Your task to perform on an android device: change the clock display to analog Image 0: 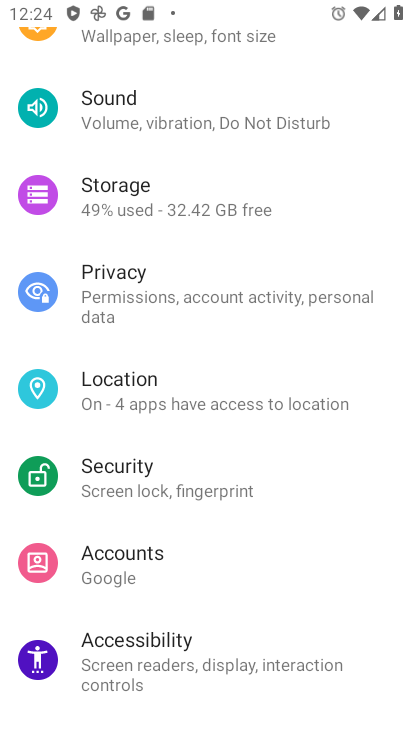
Step 0: press back button
Your task to perform on an android device: change the clock display to analog Image 1: 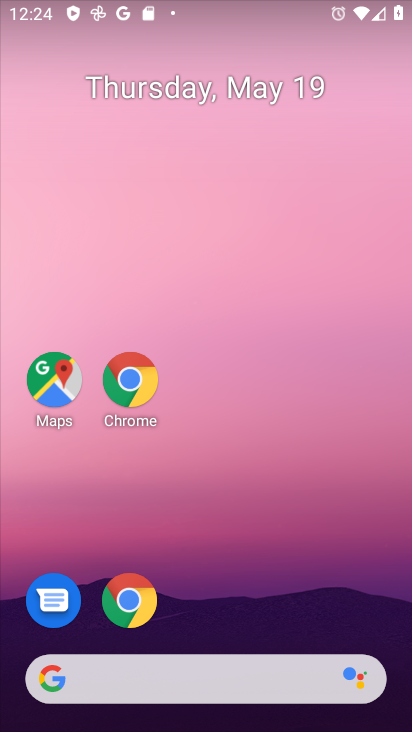
Step 1: drag from (324, 660) to (167, 121)
Your task to perform on an android device: change the clock display to analog Image 2: 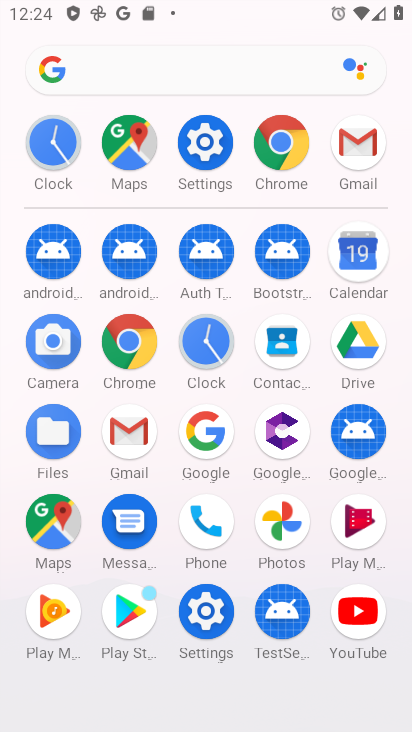
Step 2: drag from (181, 310) to (205, 339)
Your task to perform on an android device: change the clock display to analog Image 3: 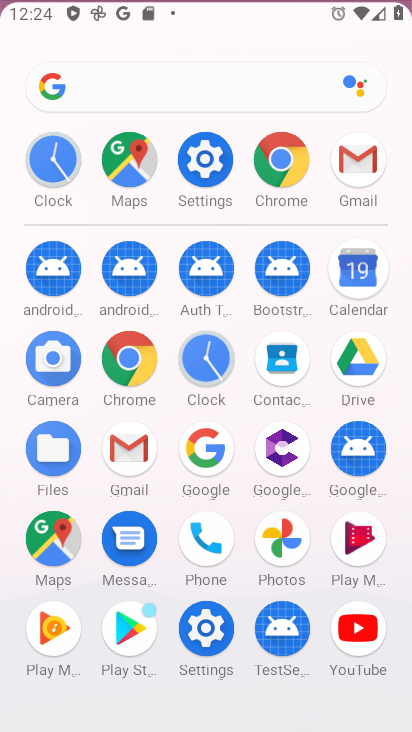
Step 3: click (205, 339)
Your task to perform on an android device: change the clock display to analog Image 4: 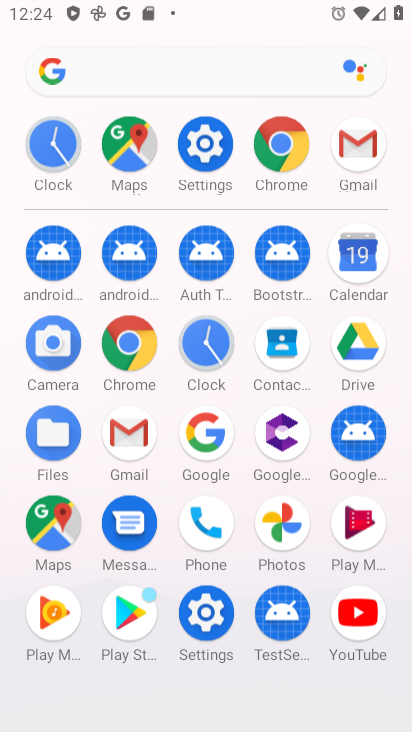
Step 4: click (207, 339)
Your task to perform on an android device: change the clock display to analog Image 5: 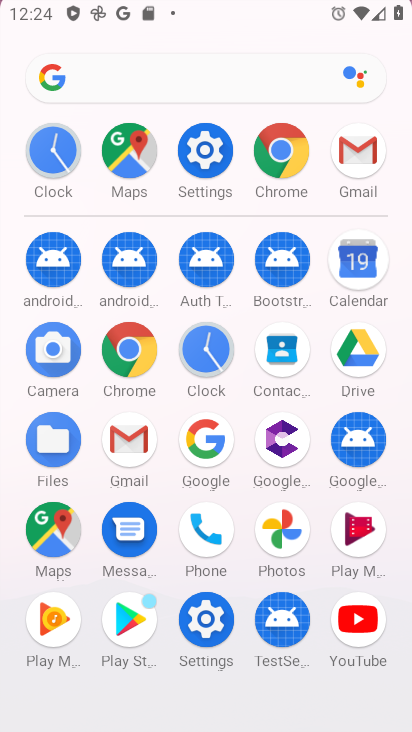
Step 5: click (207, 337)
Your task to perform on an android device: change the clock display to analog Image 6: 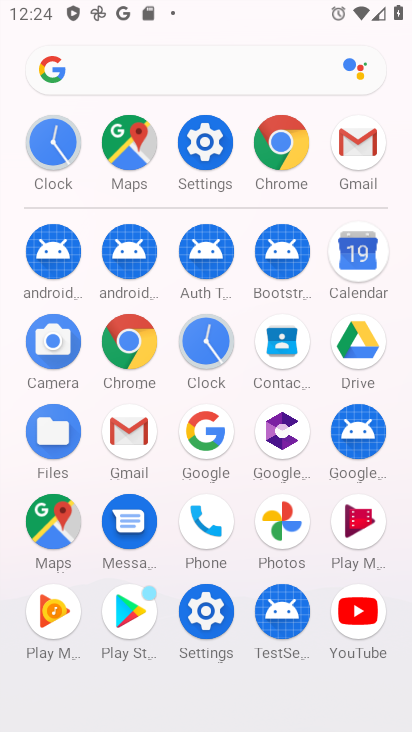
Step 6: click (207, 337)
Your task to perform on an android device: change the clock display to analog Image 7: 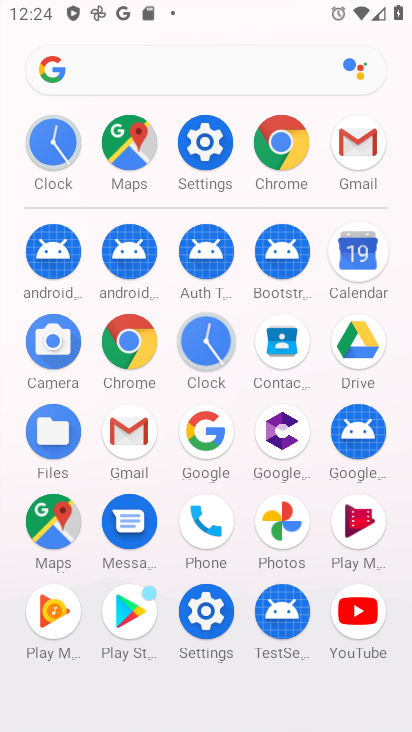
Step 7: click (207, 337)
Your task to perform on an android device: change the clock display to analog Image 8: 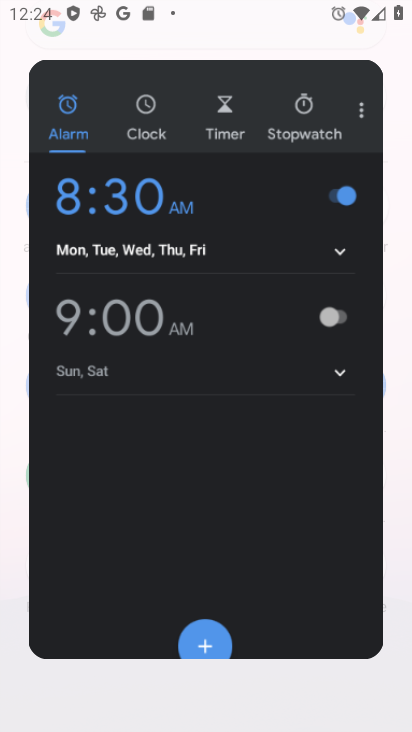
Step 8: click (207, 337)
Your task to perform on an android device: change the clock display to analog Image 9: 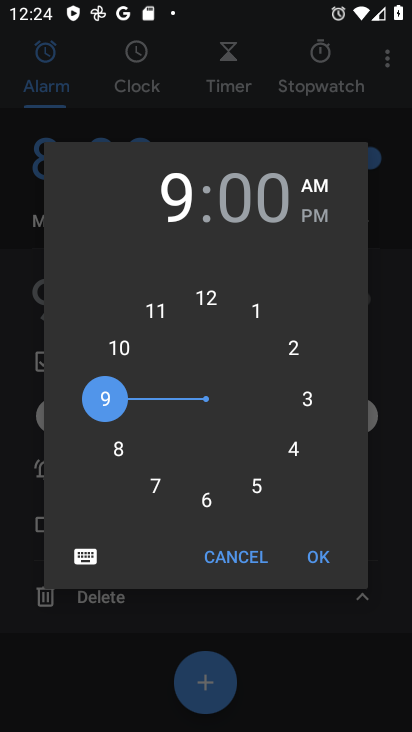
Step 9: click (245, 562)
Your task to perform on an android device: change the clock display to analog Image 10: 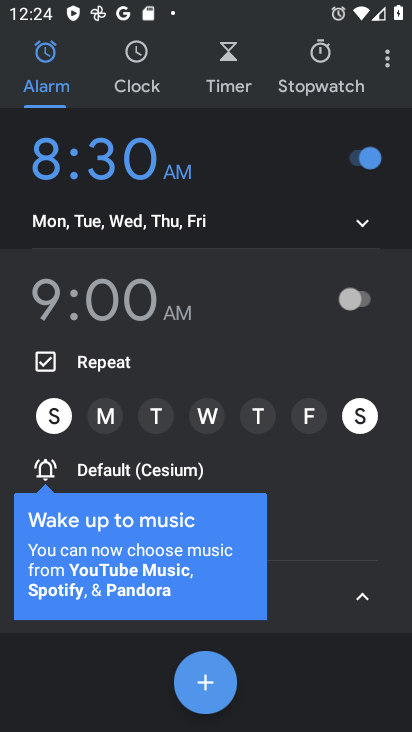
Step 10: click (386, 61)
Your task to perform on an android device: change the clock display to analog Image 11: 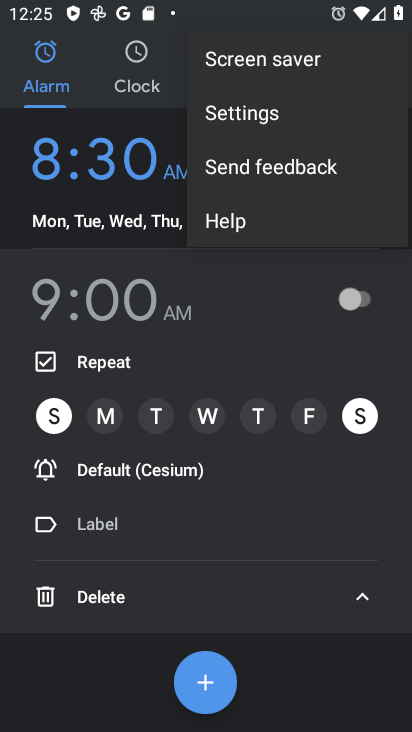
Step 11: click (225, 103)
Your task to perform on an android device: change the clock display to analog Image 12: 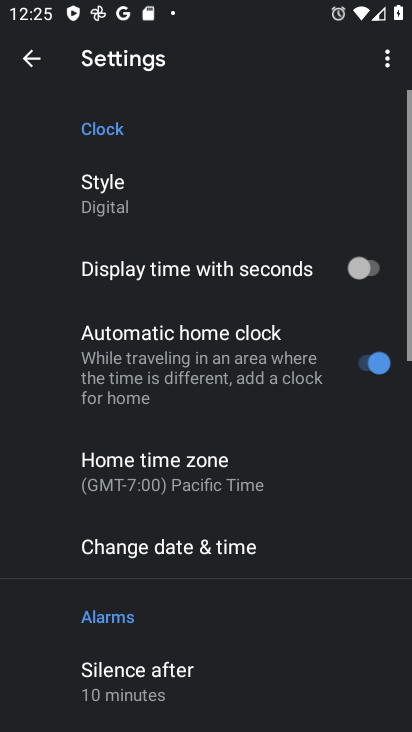
Step 12: click (145, 190)
Your task to perform on an android device: change the clock display to analog Image 13: 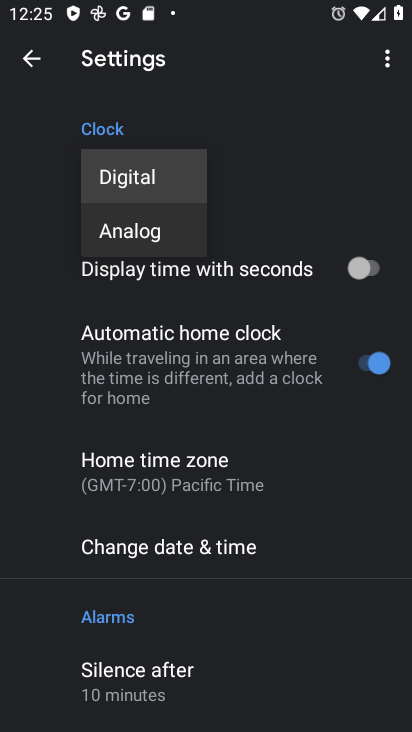
Step 13: click (139, 229)
Your task to perform on an android device: change the clock display to analog Image 14: 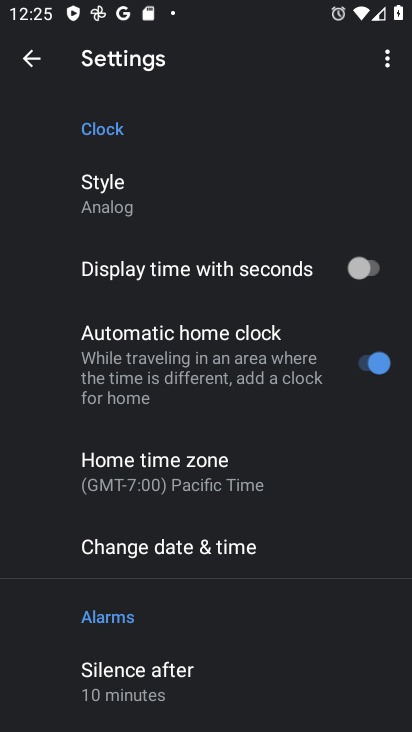
Step 14: task complete